Your task to perform on an android device: turn on bluetooth scan Image 0: 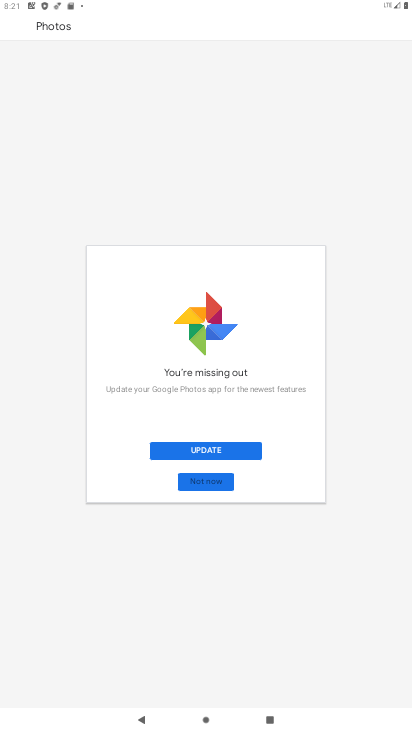
Step 0: press home button
Your task to perform on an android device: turn on bluetooth scan Image 1: 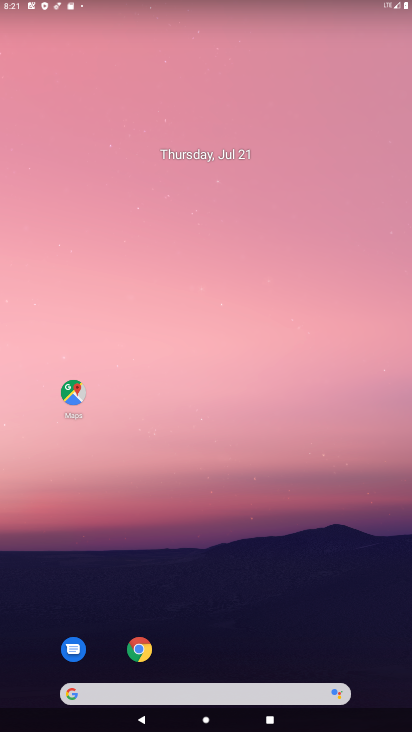
Step 1: drag from (234, 587) to (111, 41)
Your task to perform on an android device: turn on bluetooth scan Image 2: 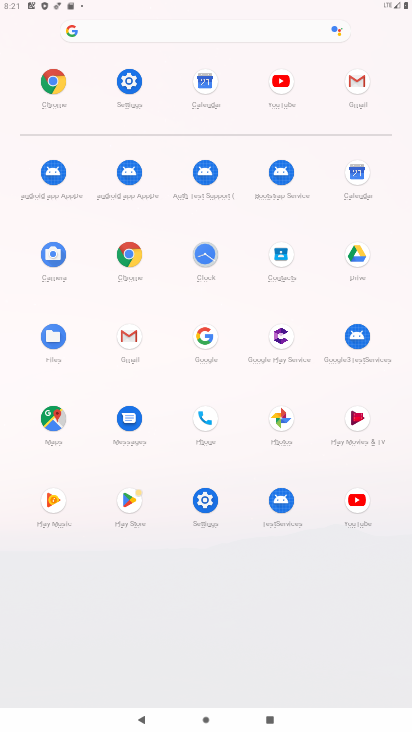
Step 2: click (195, 510)
Your task to perform on an android device: turn on bluetooth scan Image 3: 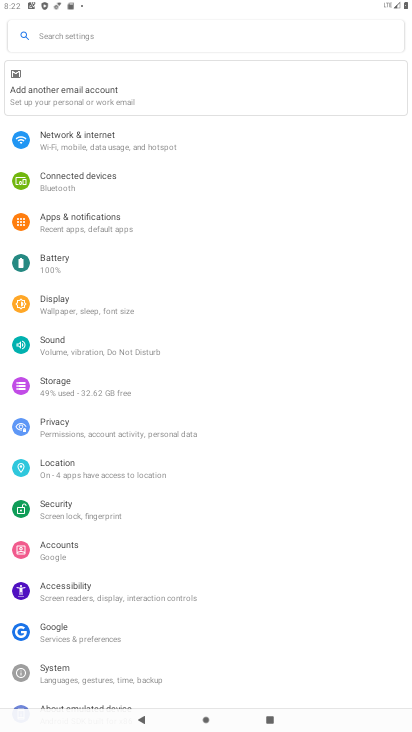
Step 3: click (107, 469)
Your task to perform on an android device: turn on bluetooth scan Image 4: 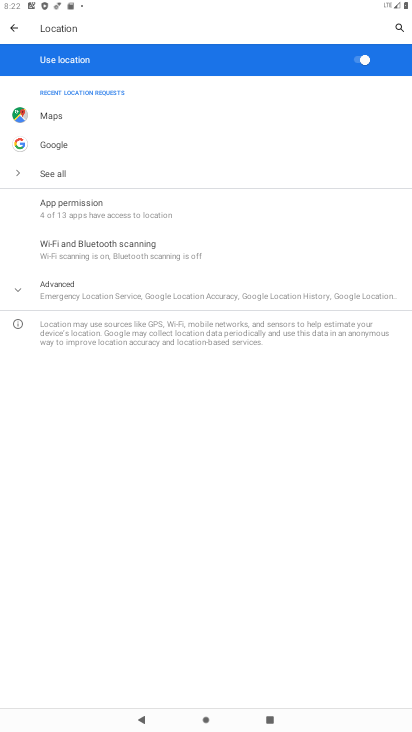
Step 4: click (150, 236)
Your task to perform on an android device: turn on bluetooth scan Image 5: 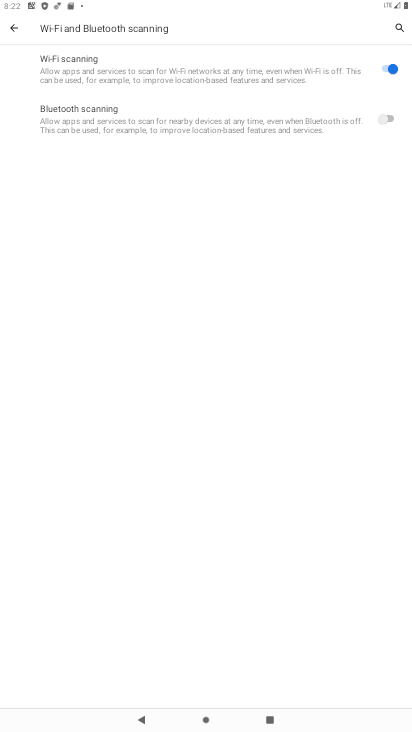
Step 5: click (384, 119)
Your task to perform on an android device: turn on bluetooth scan Image 6: 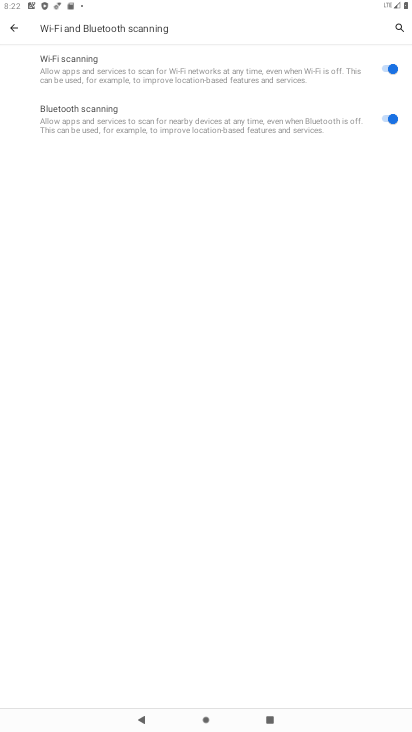
Step 6: task complete